Your task to perform on an android device: Open CNN.com Image 0: 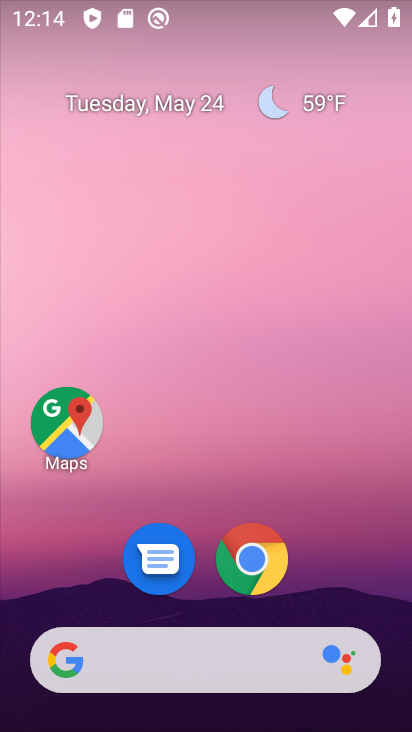
Step 0: click (250, 554)
Your task to perform on an android device: Open CNN.com Image 1: 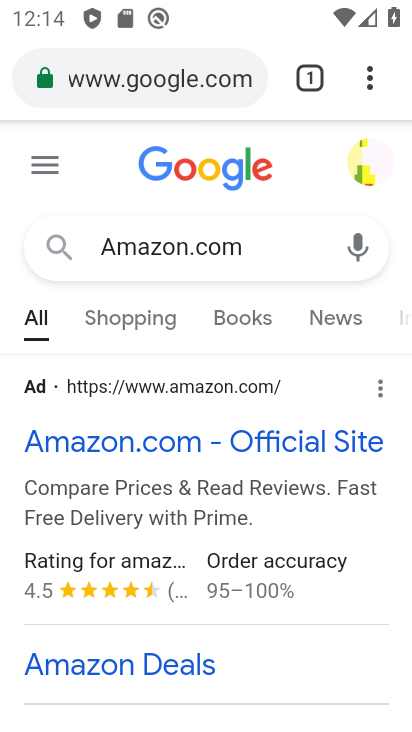
Step 1: click (254, 74)
Your task to perform on an android device: Open CNN.com Image 2: 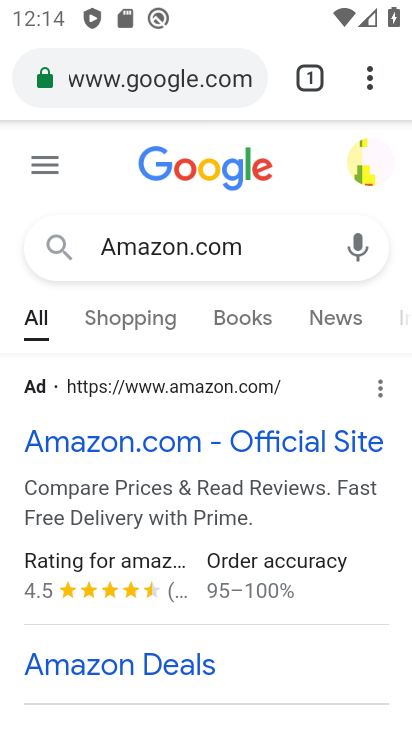
Step 2: click (254, 78)
Your task to perform on an android device: Open CNN.com Image 3: 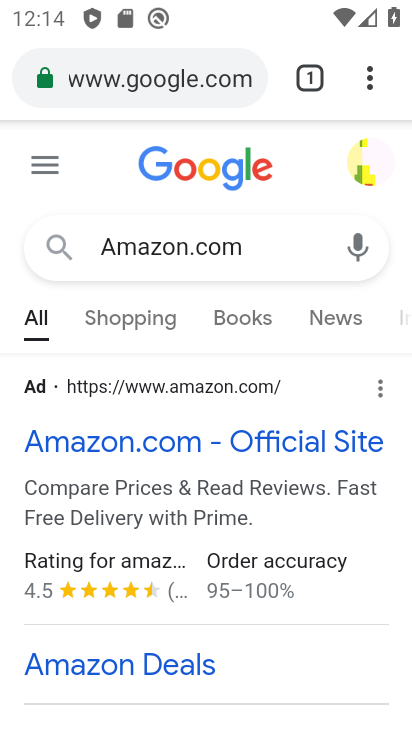
Step 3: click (257, 80)
Your task to perform on an android device: Open CNN.com Image 4: 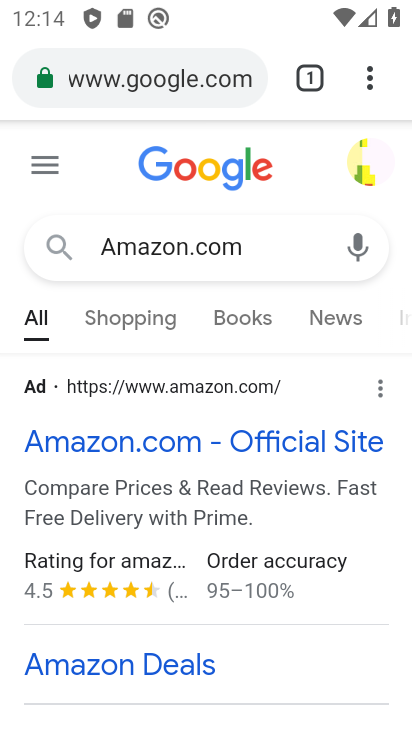
Step 4: click (243, 78)
Your task to perform on an android device: Open CNN.com Image 5: 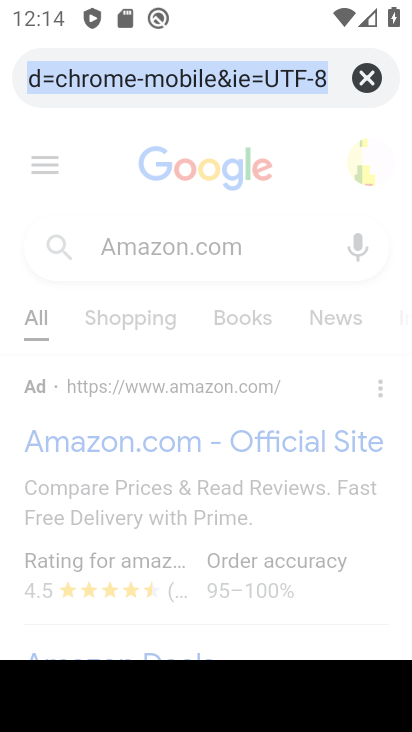
Step 5: click (356, 80)
Your task to perform on an android device: Open CNN.com Image 6: 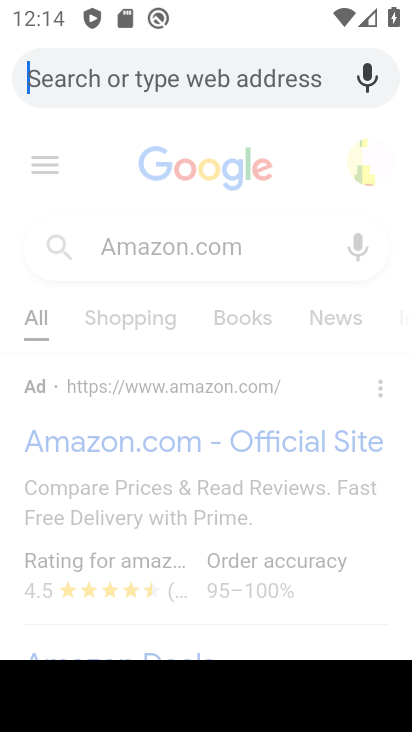
Step 6: type "CNN.com"
Your task to perform on an android device: Open CNN.com Image 7: 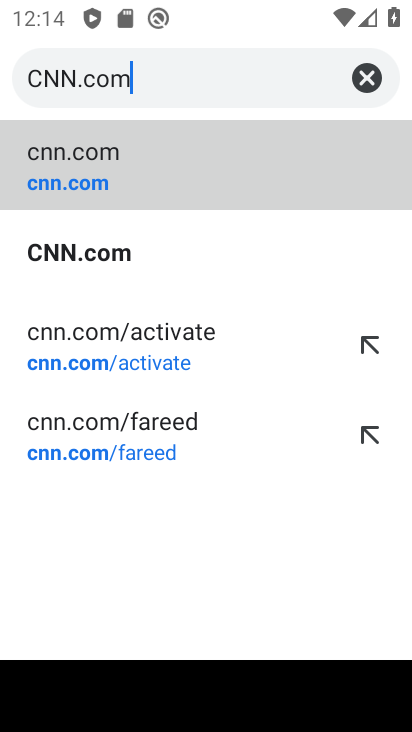
Step 7: click (88, 251)
Your task to perform on an android device: Open CNN.com Image 8: 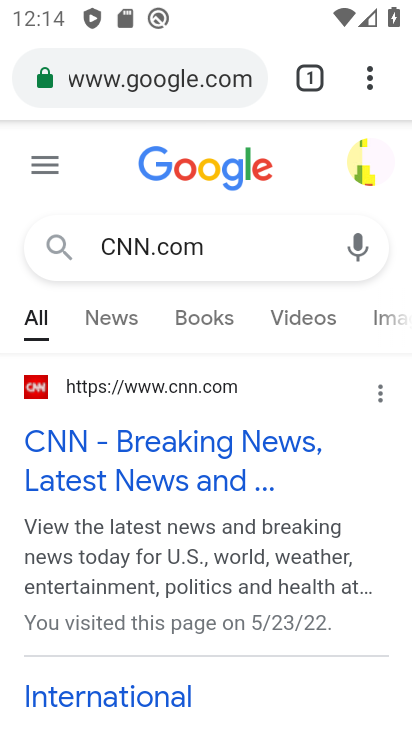
Step 8: click (148, 458)
Your task to perform on an android device: Open CNN.com Image 9: 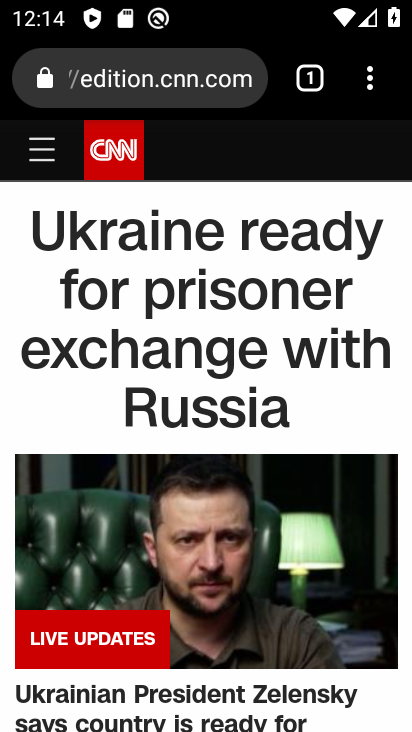
Step 9: task complete